Your task to perform on an android device: change keyboard looks Image 0: 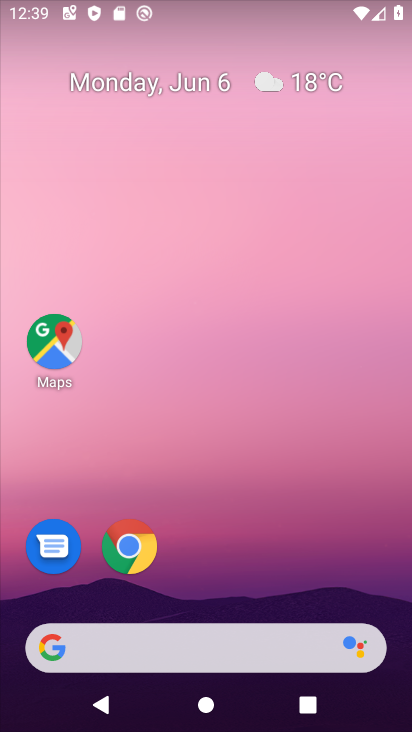
Step 0: drag from (257, 488) to (261, 33)
Your task to perform on an android device: change keyboard looks Image 1: 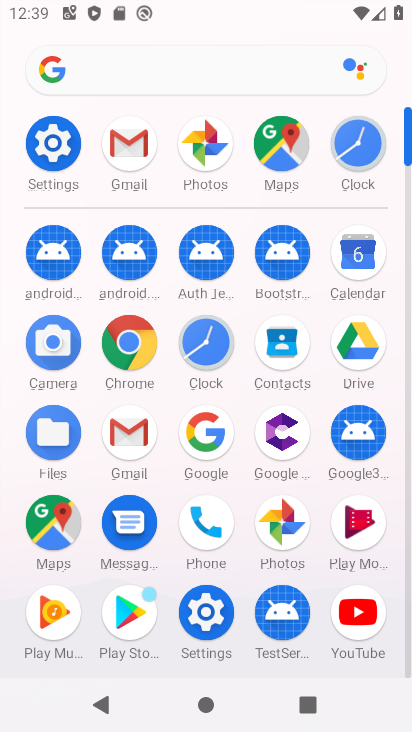
Step 1: click (62, 148)
Your task to perform on an android device: change keyboard looks Image 2: 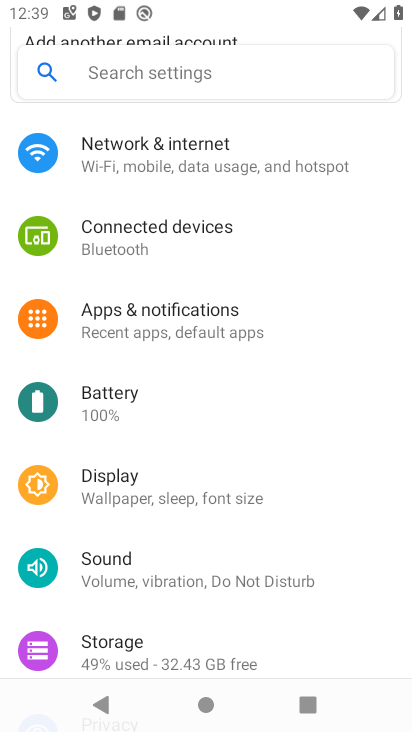
Step 2: drag from (70, 602) to (123, 84)
Your task to perform on an android device: change keyboard looks Image 3: 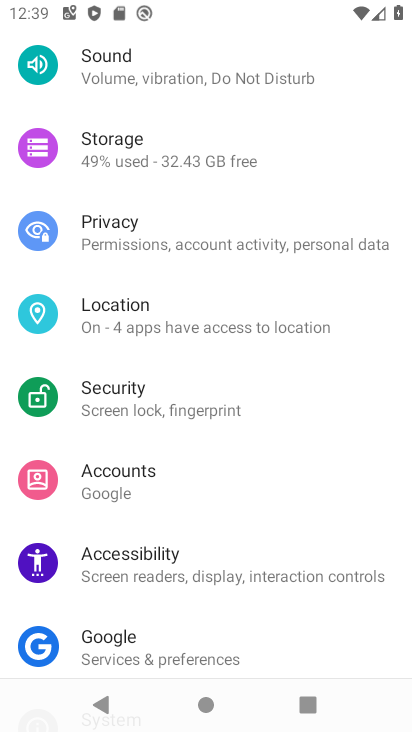
Step 3: drag from (54, 600) to (96, 262)
Your task to perform on an android device: change keyboard looks Image 4: 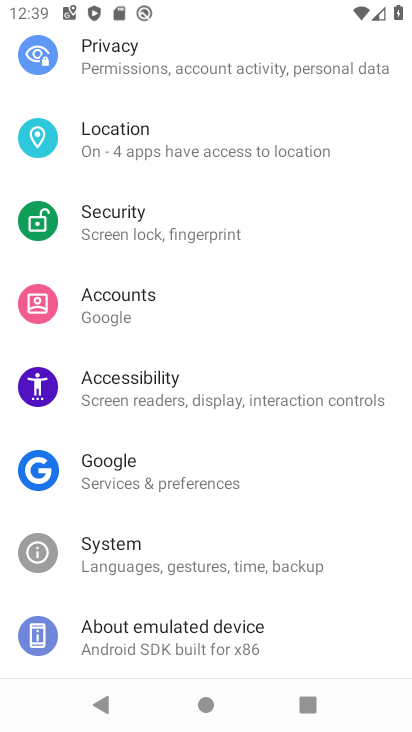
Step 4: click (158, 556)
Your task to perform on an android device: change keyboard looks Image 5: 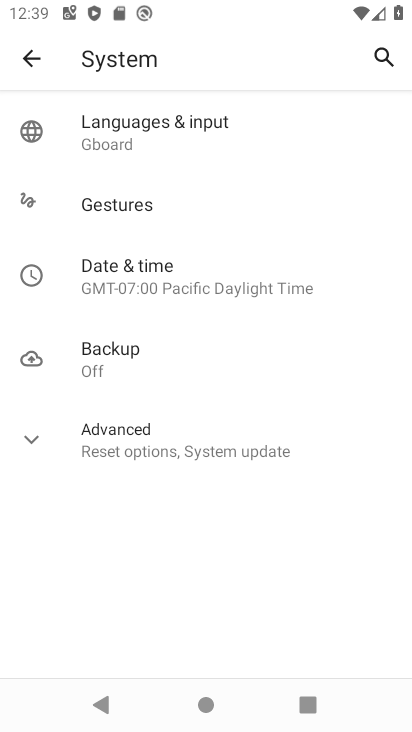
Step 5: click (156, 139)
Your task to perform on an android device: change keyboard looks Image 6: 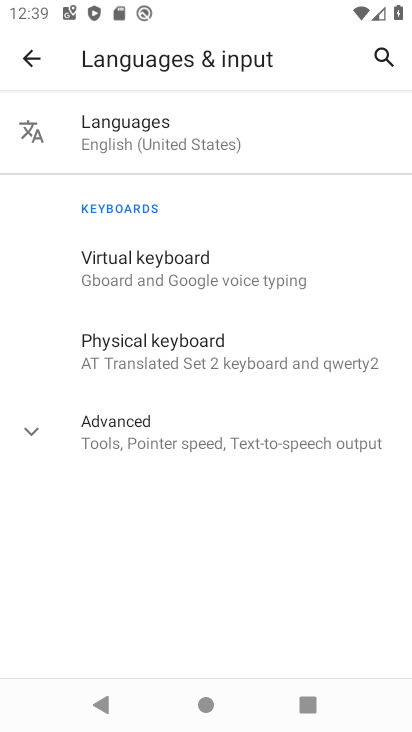
Step 6: click (139, 271)
Your task to perform on an android device: change keyboard looks Image 7: 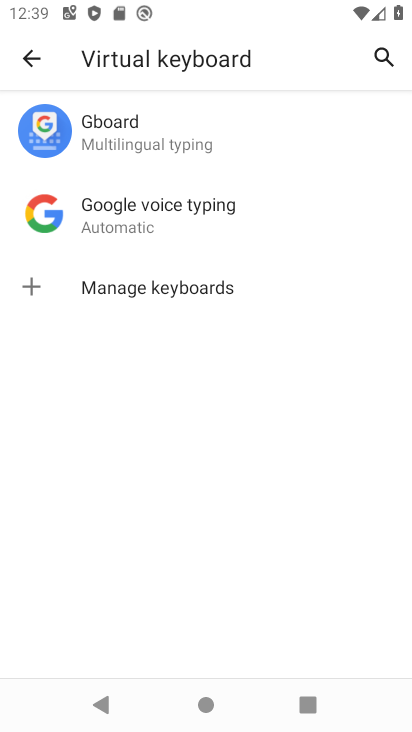
Step 7: click (137, 142)
Your task to perform on an android device: change keyboard looks Image 8: 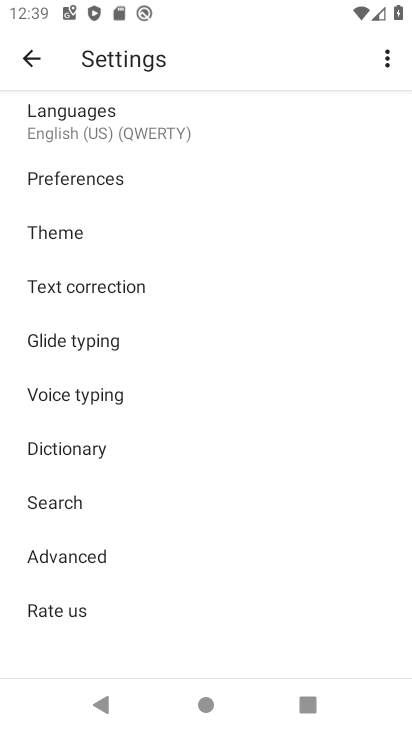
Step 8: click (57, 220)
Your task to perform on an android device: change keyboard looks Image 9: 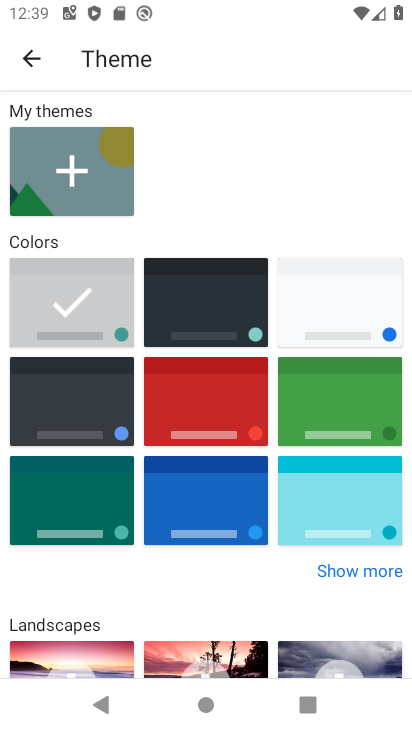
Step 9: click (212, 420)
Your task to perform on an android device: change keyboard looks Image 10: 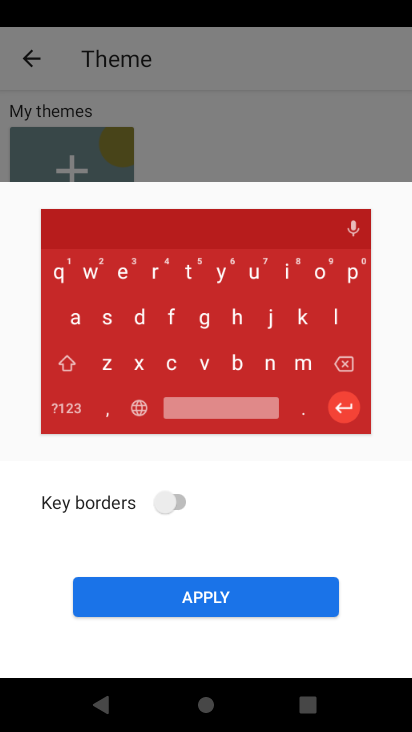
Step 10: click (301, 604)
Your task to perform on an android device: change keyboard looks Image 11: 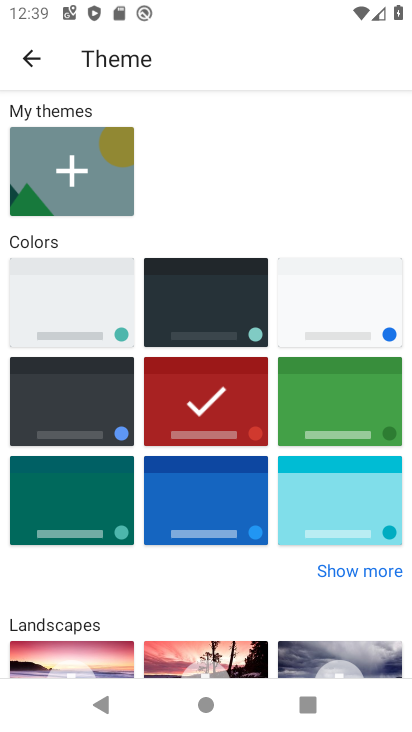
Step 11: task complete